Your task to perform on an android device: toggle notification dots Image 0: 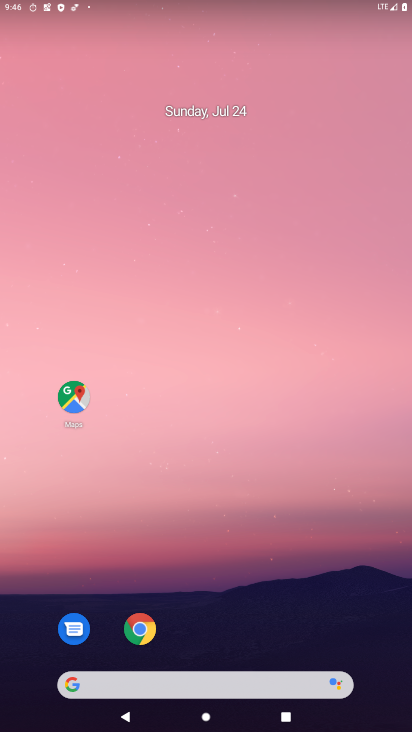
Step 0: press home button
Your task to perform on an android device: toggle notification dots Image 1: 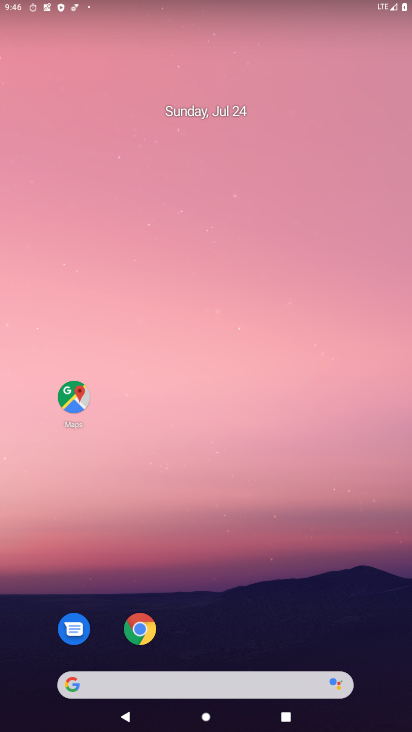
Step 1: drag from (235, 9) to (402, 557)
Your task to perform on an android device: toggle notification dots Image 2: 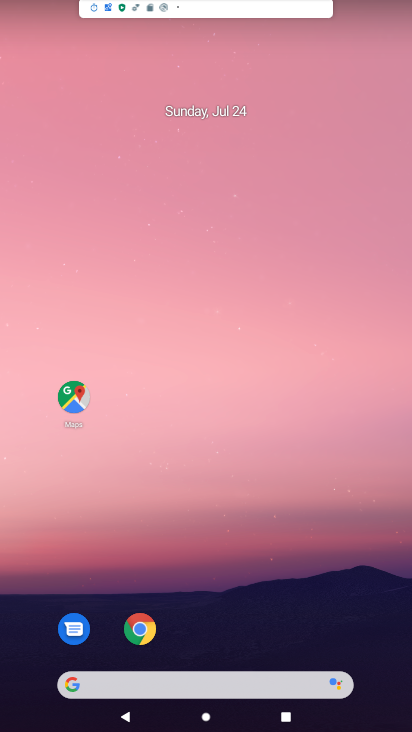
Step 2: drag from (251, 635) to (238, 3)
Your task to perform on an android device: toggle notification dots Image 3: 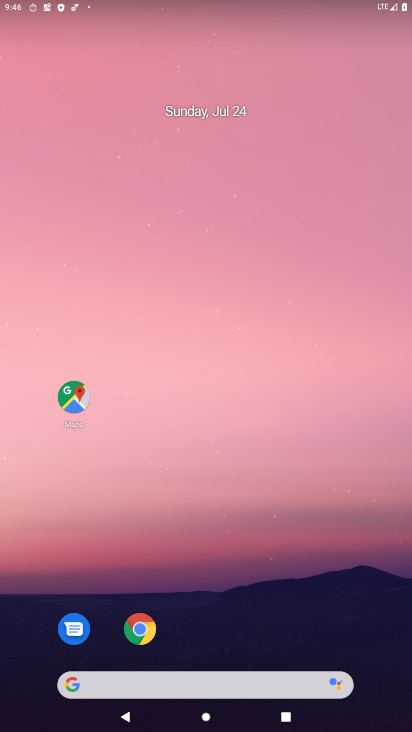
Step 3: drag from (224, 635) to (410, 126)
Your task to perform on an android device: toggle notification dots Image 4: 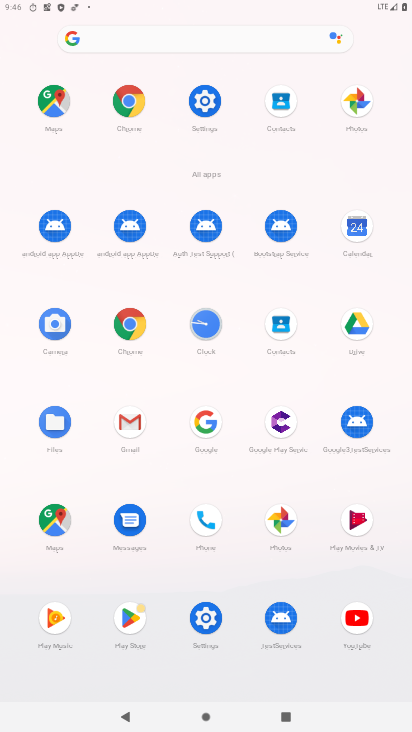
Step 4: click (203, 119)
Your task to perform on an android device: toggle notification dots Image 5: 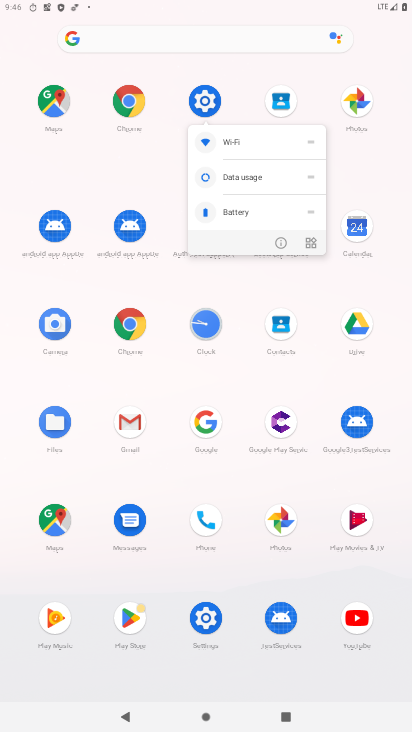
Step 5: click (207, 96)
Your task to perform on an android device: toggle notification dots Image 6: 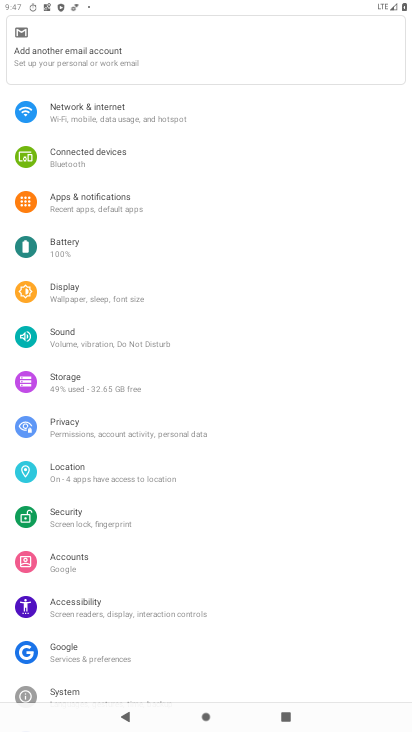
Step 6: click (95, 205)
Your task to perform on an android device: toggle notification dots Image 7: 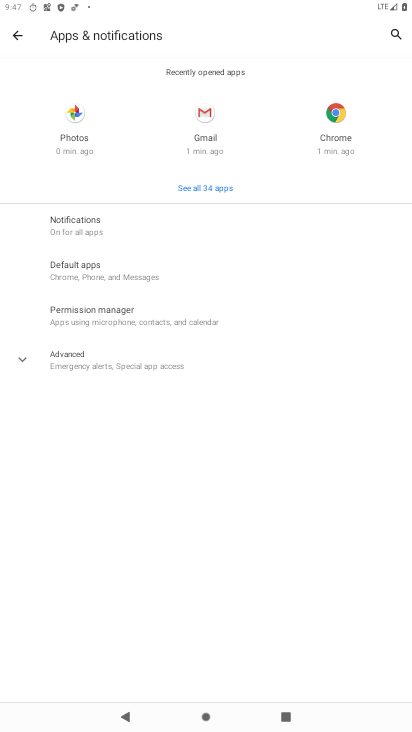
Step 7: click (79, 221)
Your task to perform on an android device: toggle notification dots Image 8: 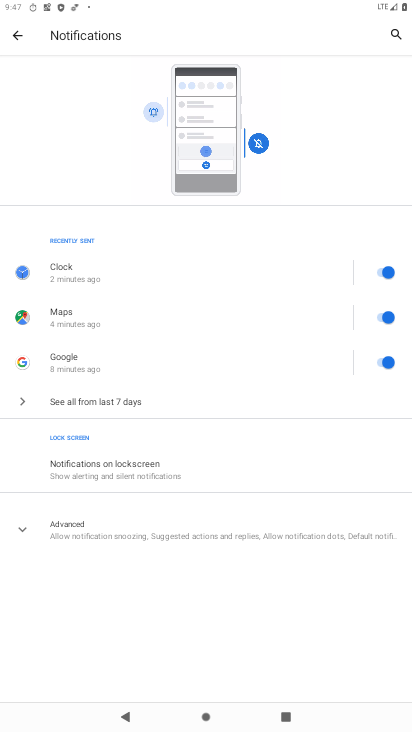
Step 8: click (27, 523)
Your task to perform on an android device: toggle notification dots Image 9: 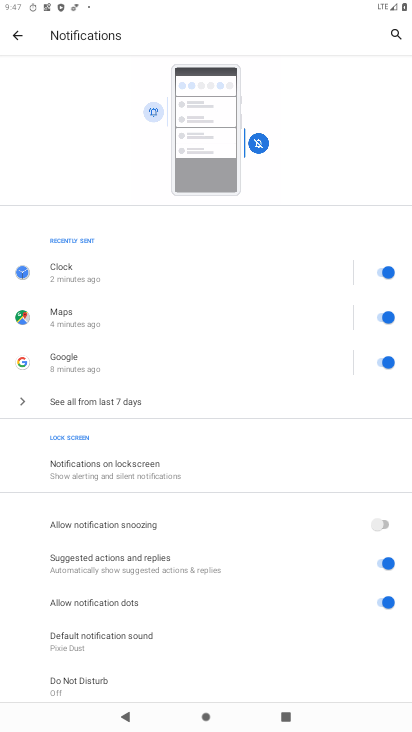
Step 9: click (389, 603)
Your task to perform on an android device: toggle notification dots Image 10: 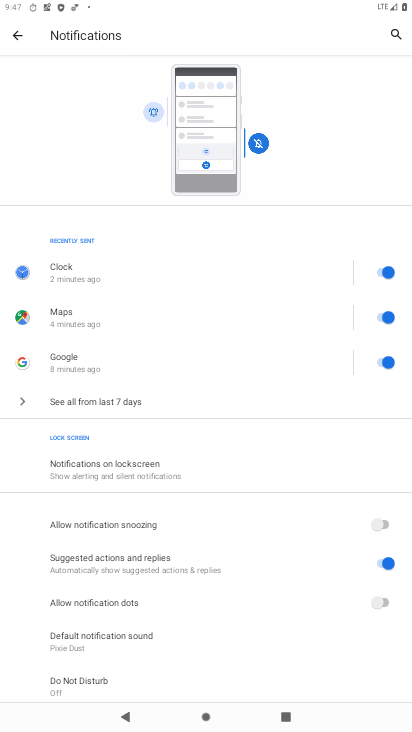
Step 10: task complete